Your task to perform on an android device: Is it going to rain this weekend? Image 0: 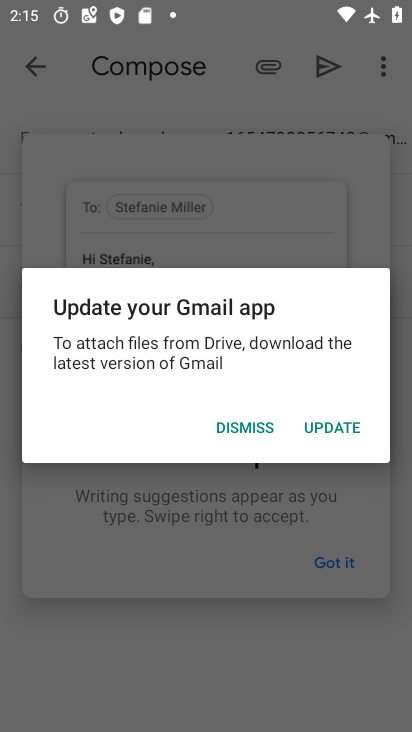
Step 0: press home button
Your task to perform on an android device: Is it going to rain this weekend? Image 1: 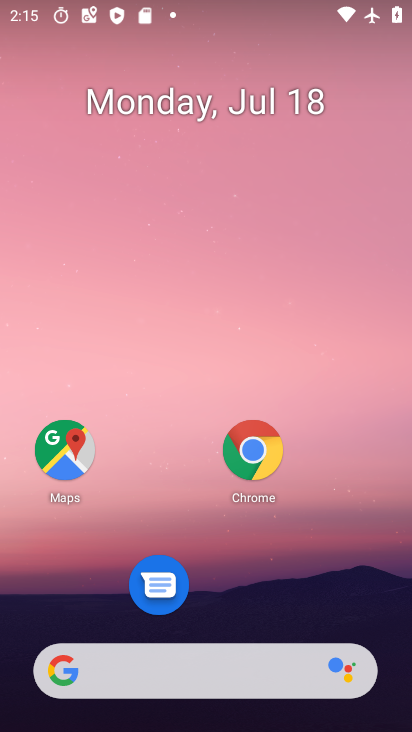
Step 1: click (145, 665)
Your task to perform on an android device: Is it going to rain this weekend? Image 2: 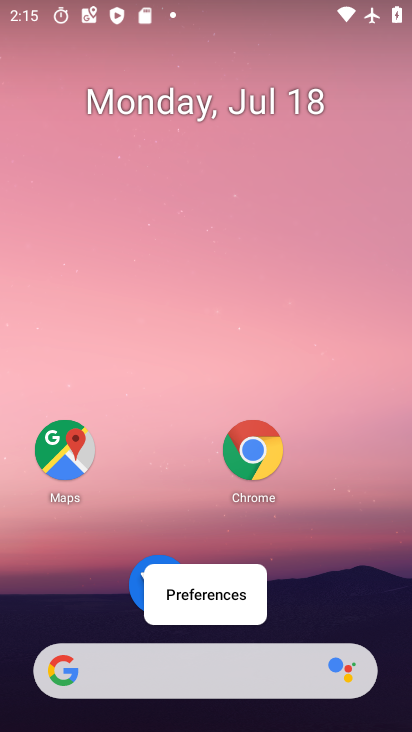
Step 2: click (161, 684)
Your task to perform on an android device: Is it going to rain this weekend? Image 3: 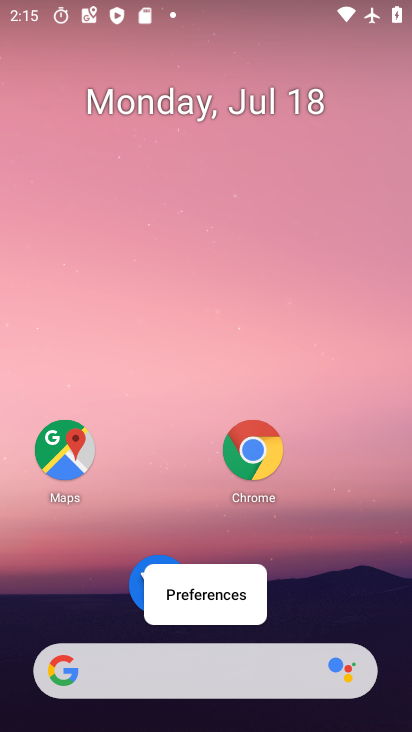
Step 3: click (174, 669)
Your task to perform on an android device: Is it going to rain this weekend? Image 4: 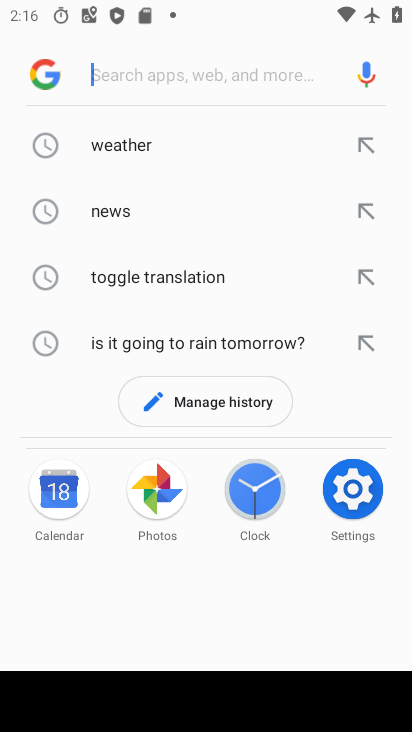
Step 4: click (140, 143)
Your task to perform on an android device: Is it going to rain this weekend? Image 5: 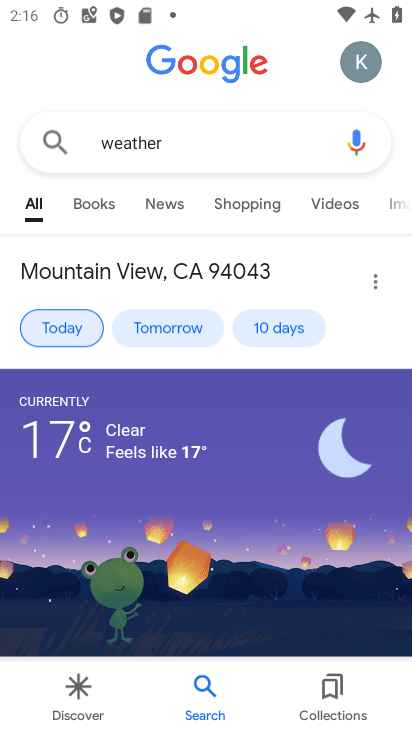
Step 5: click (274, 328)
Your task to perform on an android device: Is it going to rain this weekend? Image 6: 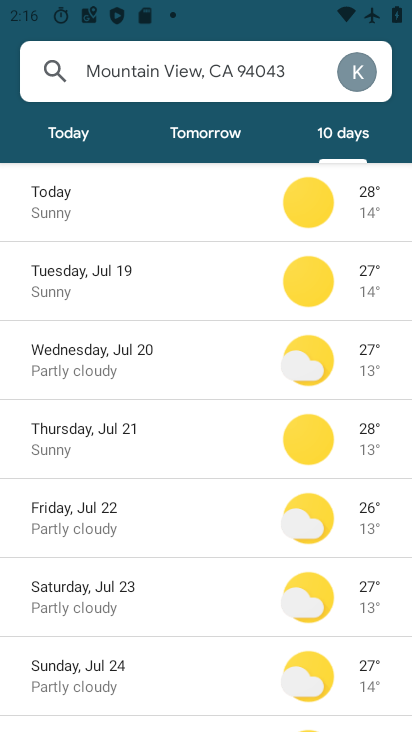
Step 6: click (107, 606)
Your task to perform on an android device: Is it going to rain this weekend? Image 7: 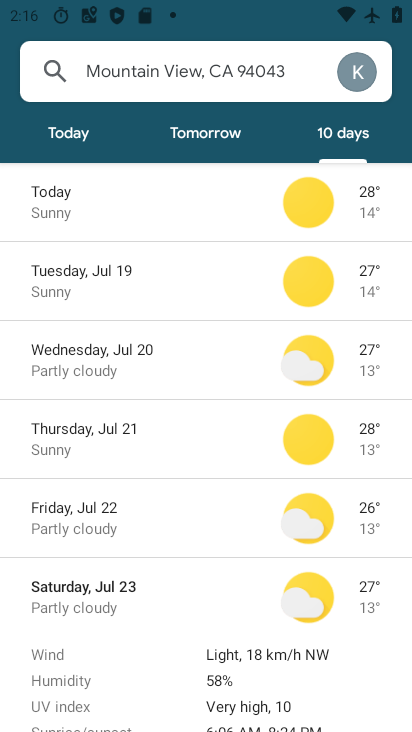
Step 7: task complete